Your task to perform on an android device: What's on my calendar today? Image 0: 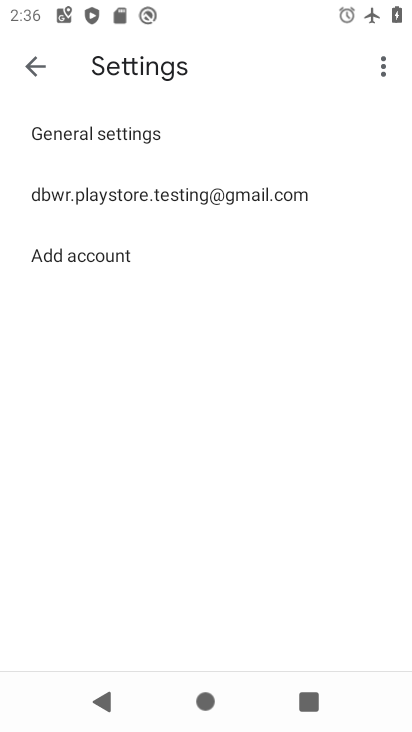
Step 0: press home button
Your task to perform on an android device: What's on my calendar today? Image 1: 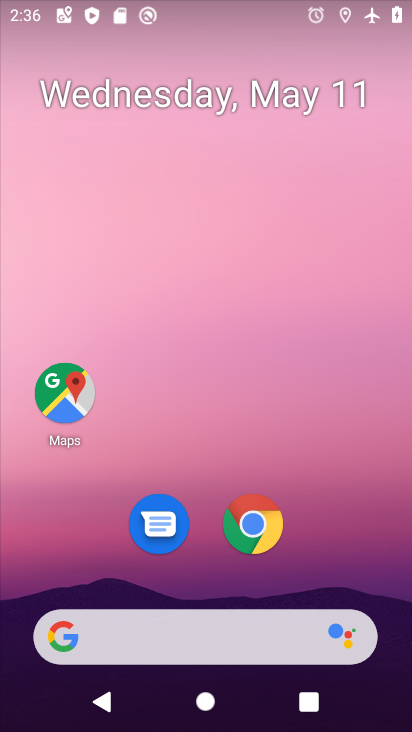
Step 1: drag from (316, 513) to (340, 72)
Your task to perform on an android device: What's on my calendar today? Image 2: 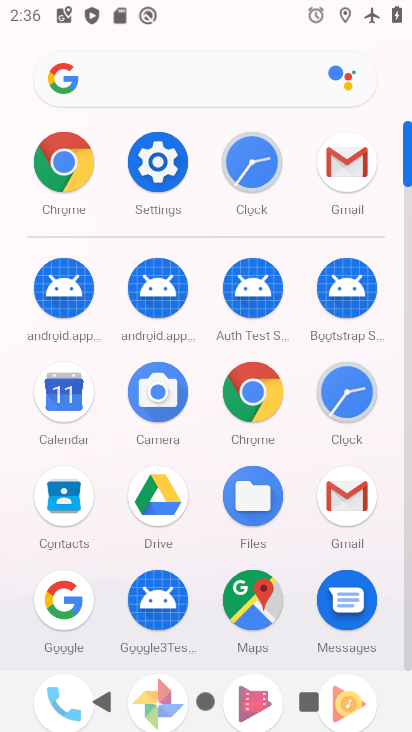
Step 2: click (54, 397)
Your task to perform on an android device: What's on my calendar today? Image 3: 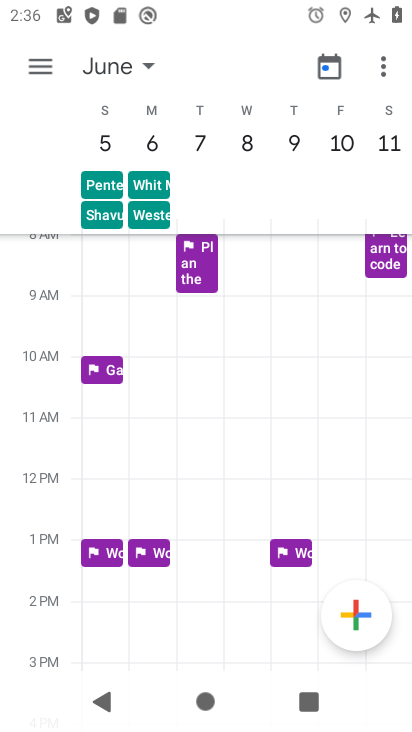
Step 3: click (43, 63)
Your task to perform on an android device: What's on my calendar today? Image 4: 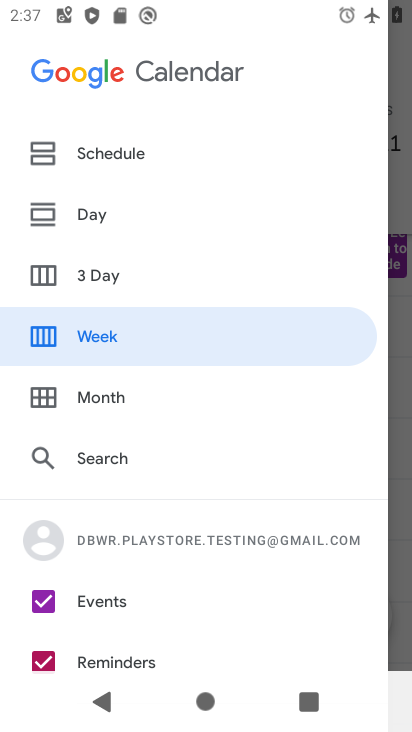
Step 4: click (74, 384)
Your task to perform on an android device: What's on my calendar today? Image 5: 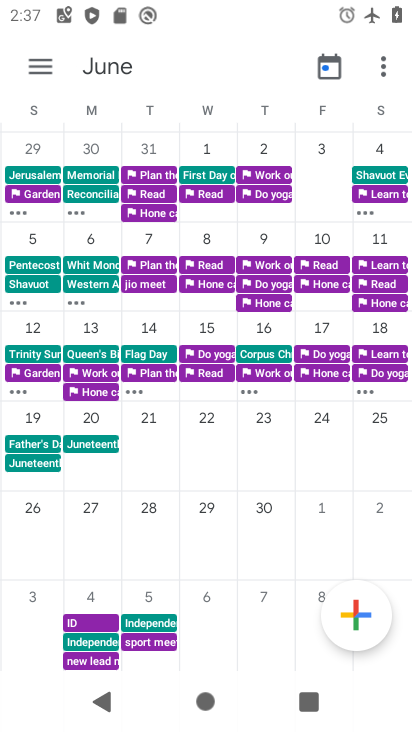
Step 5: drag from (108, 329) to (410, 221)
Your task to perform on an android device: What's on my calendar today? Image 6: 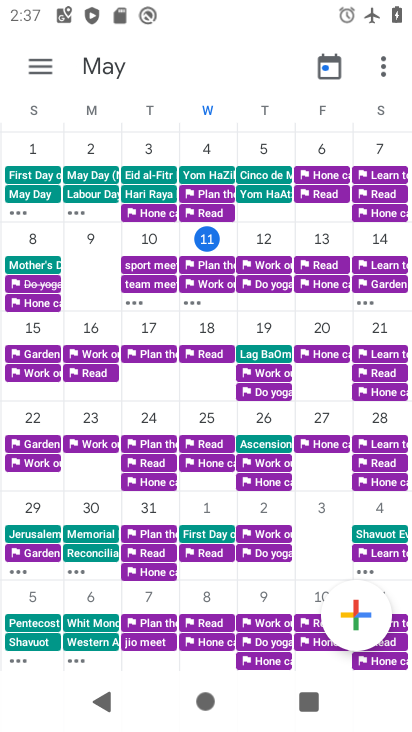
Step 6: click (210, 238)
Your task to perform on an android device: What's on my calendar today? Image 7: 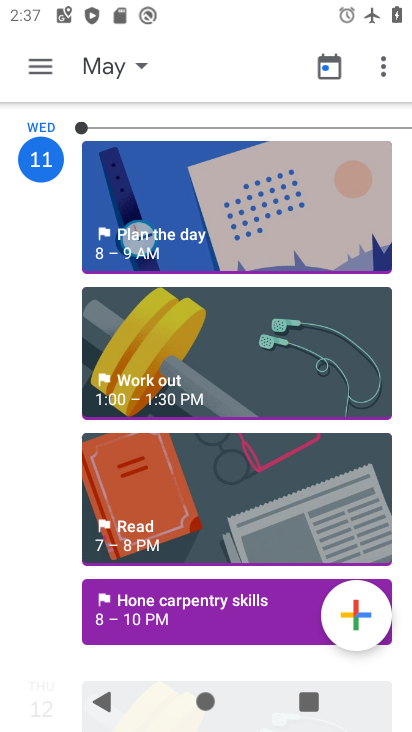
Step 7: task complete